Your task to perform on an android device: Go to Maps Image 0: 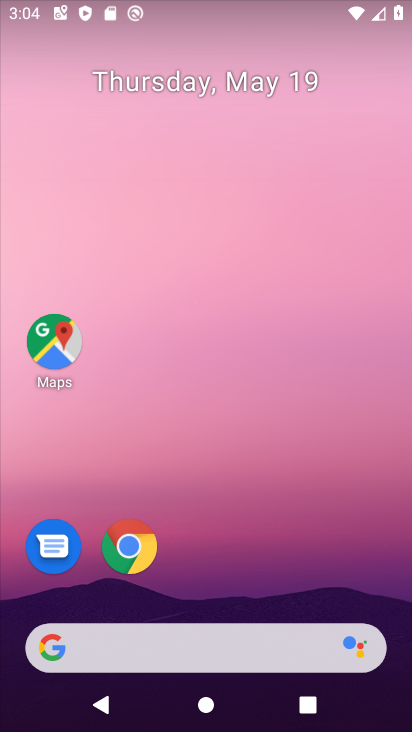
Step 0: click (56, 341)
Your task to perform on an android device: Go to Maps Image 1: 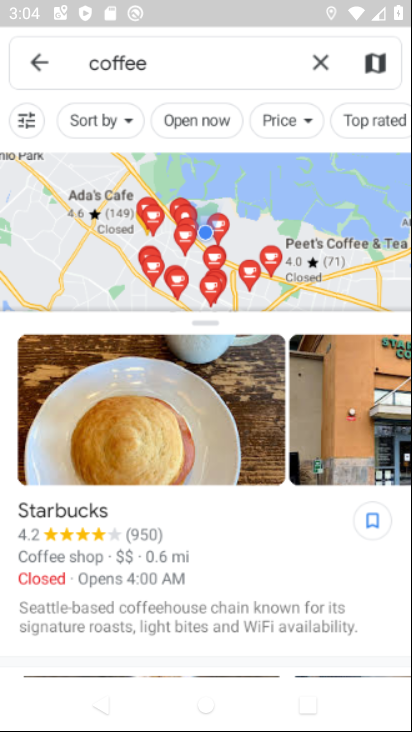
Step 1: click (317, 62)
Your task to perform on an android device: Go to Maps Image 2: 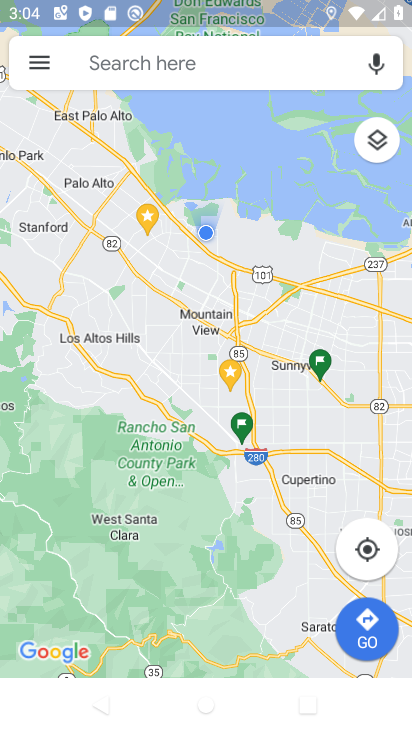
Step 2: task complete